Your task to perform on an android device: turn off notifications settings in the gmail app Image 0: 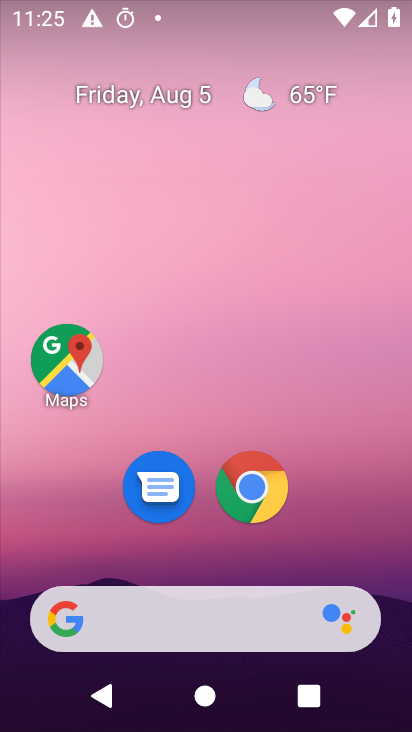
Step 0: drag from (201, 533) to (273, 63)
Your task to perform on an android device: turn off notifications settings in the gmail app Image 1: 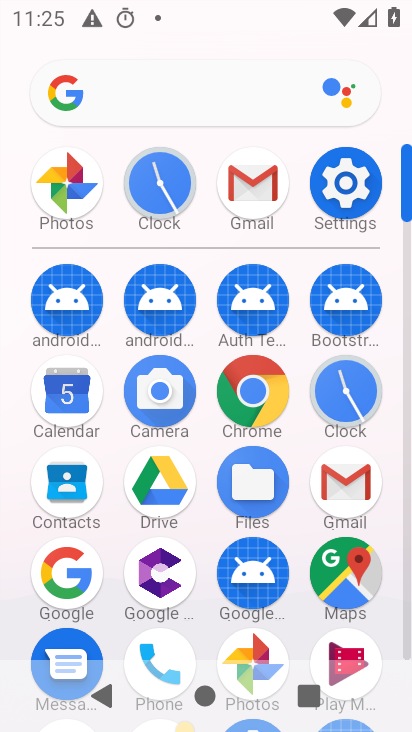
Step 1: click (246, 188)
Your task to perform on an android device: turn off notifications settings in the gmail app Image 2: 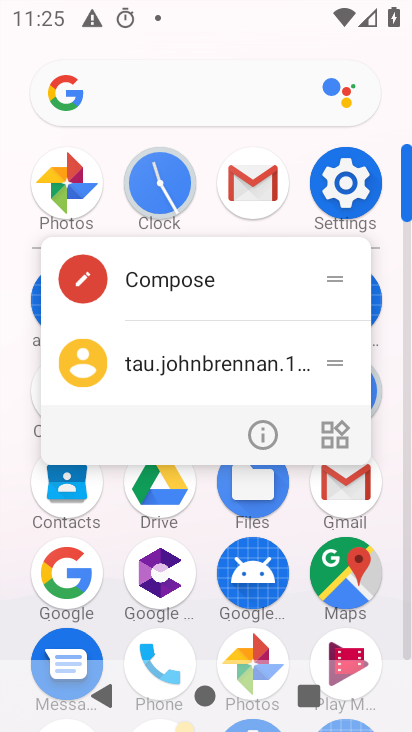
Step 2: click (270, 426)
Your task to perform on an android device: turn off notifications settings in the gmail app Image 3: 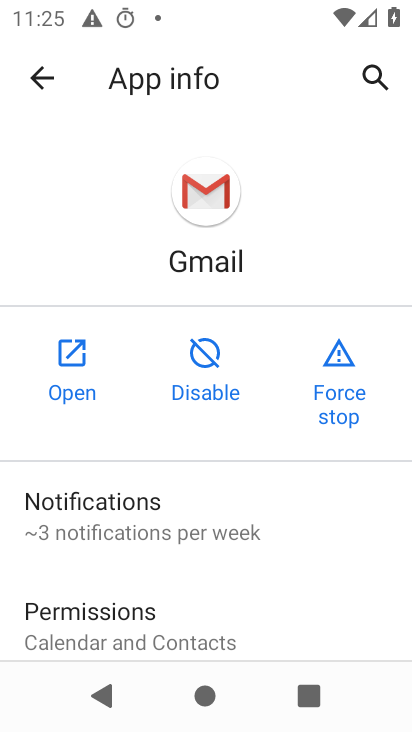
Step 3: click (150, 517)
Your task to perform on an android device: turn off notifications settings in the gmail app Image 4: 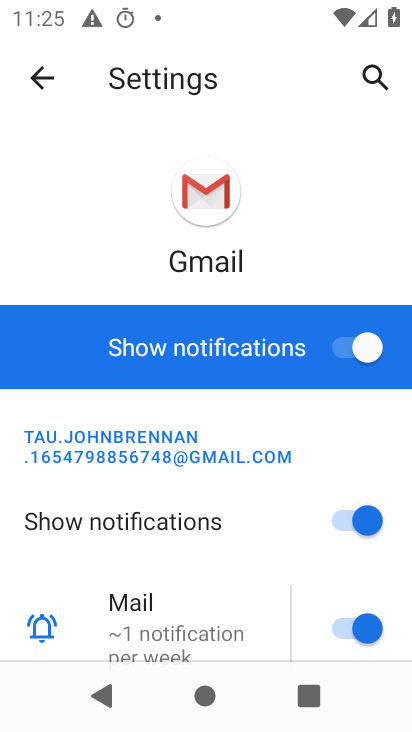
Step 4: click (359, 357)
Your task to perform on an android device: turn off notifications settings in the gmail app Image 5: 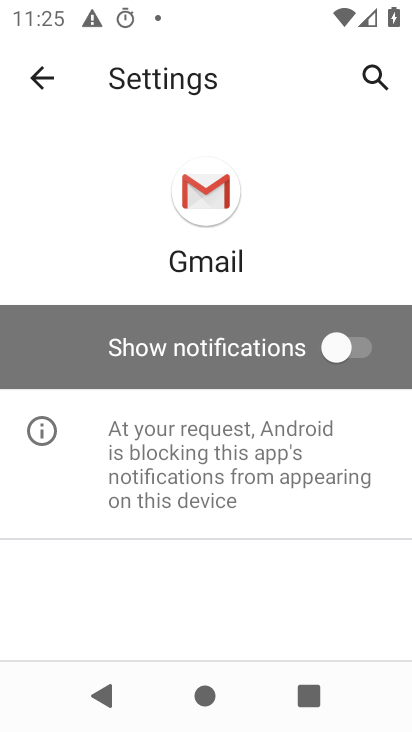
Step 5: task complete